Your task to perform on an android device: Open calendar and show me the first week of next month Image 0: 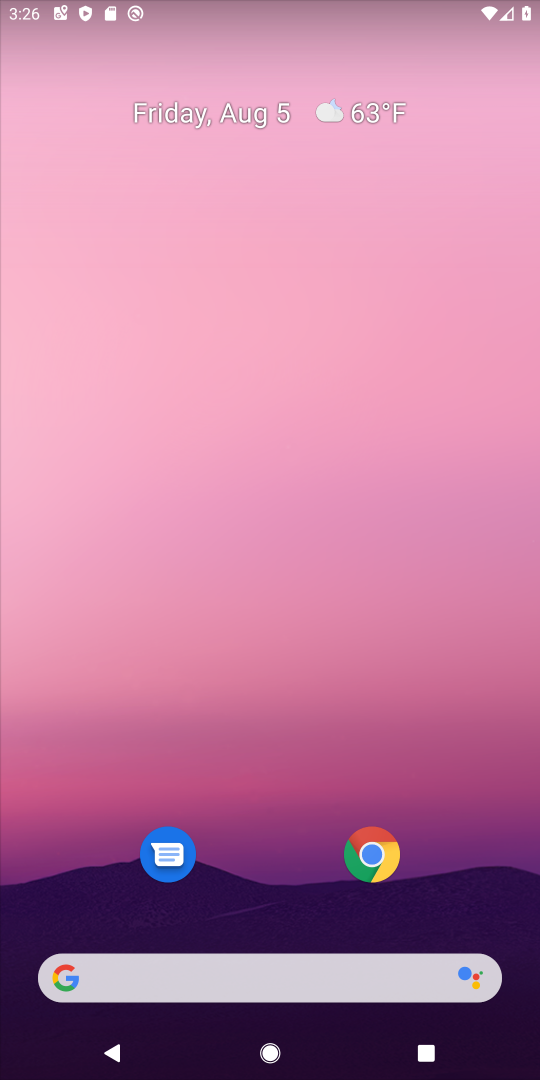
Step 0: drag from (86, 951) to (348, 551)
Your task to perform on an android device: Open calendar and show me the first week of next month Image 1: 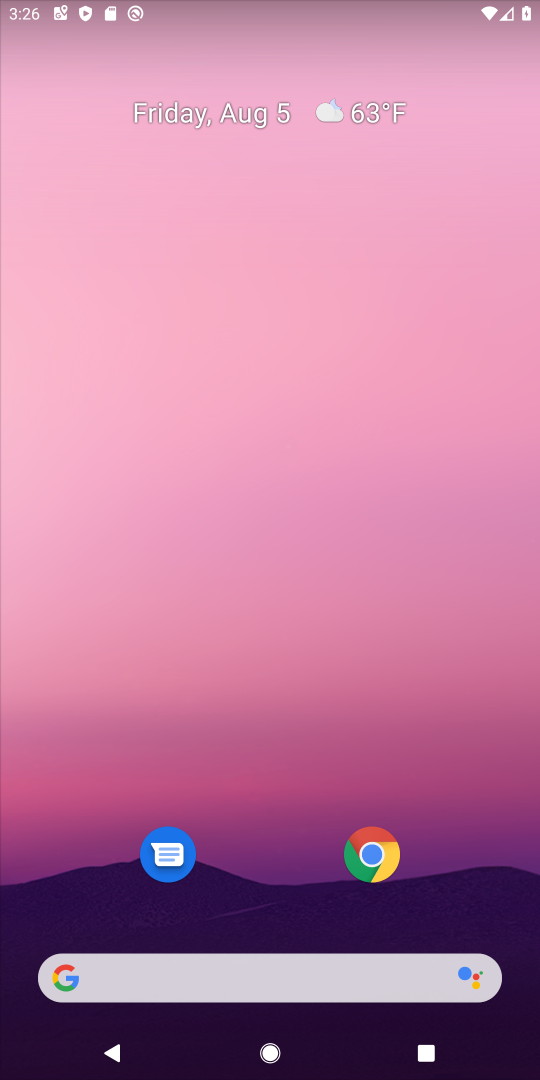
Step 1: drag from (41, 1021) to (309, 344)
Your task to perform on an android device: Open calendar and show me the first week of next month Image 2: 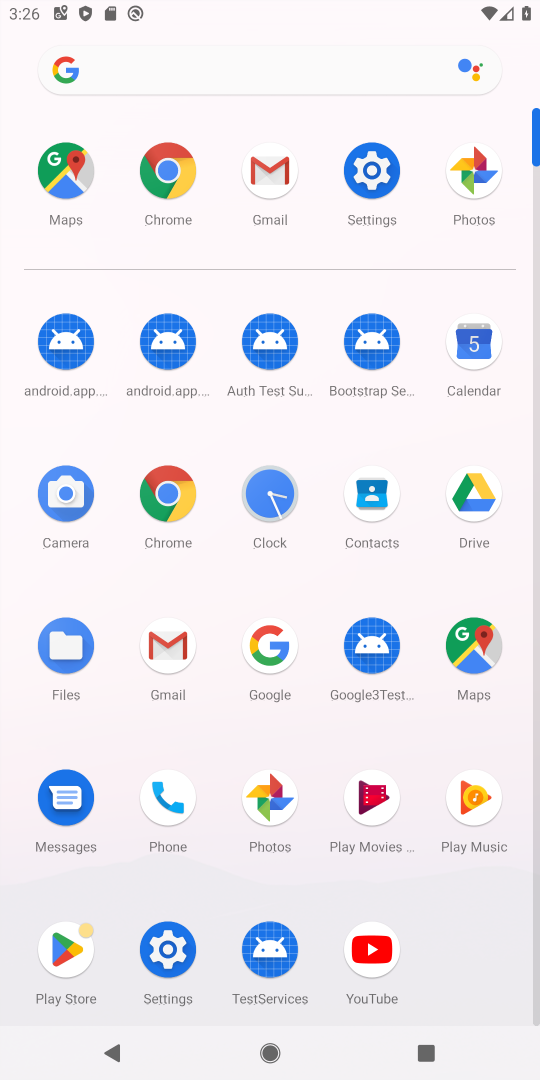
Step 2: click (462, 347)
Your task to perform on an android device: Open calendar and show me the first week of next month Image 3: 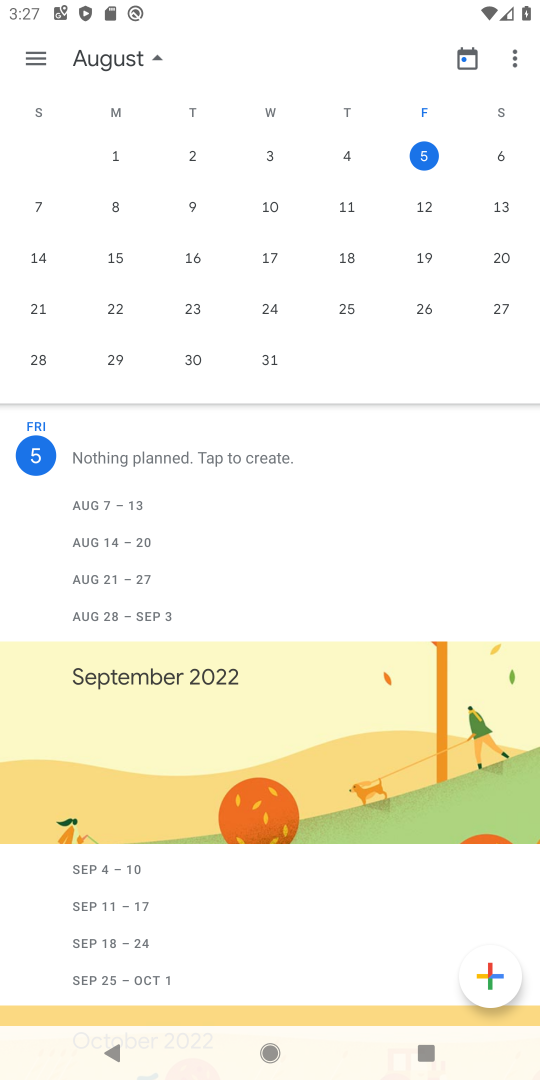
Step 3: task complete